Your task to perform on an android device: What's the weather going to be tomorrow? Image 0: 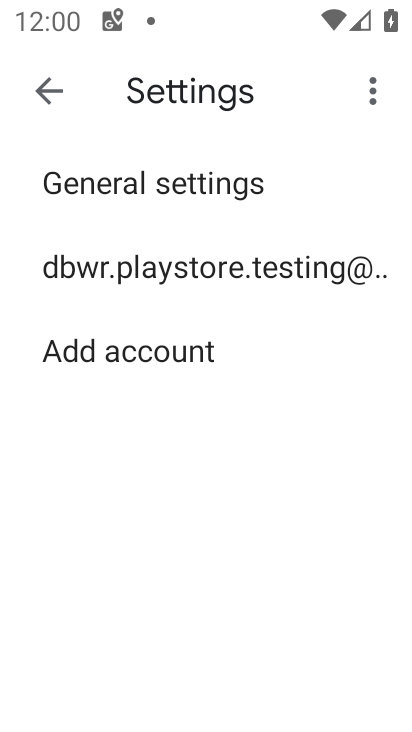
Step 0: drag from (340, 620) to (317, 269)
Your task to perform on an android device: What's the weather going to be tomorrow? Image 1: 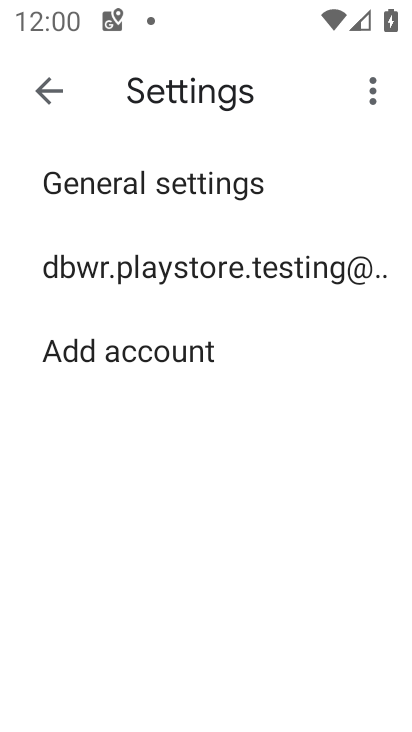
Step 1: press home button
Your task to perform on an android device: What's the weather going to be tomorrow? Image 2: 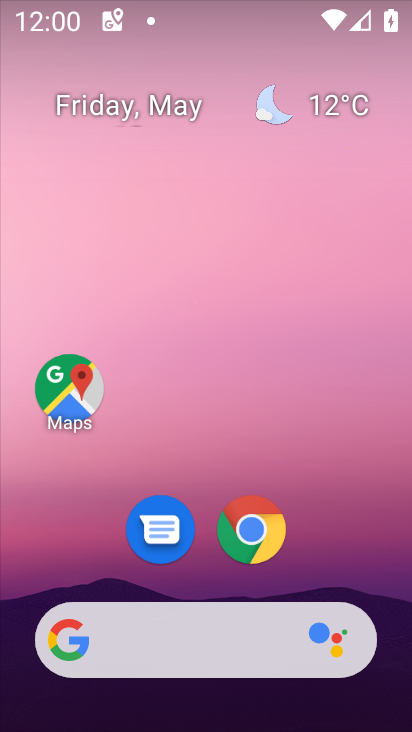
Step 2: click (239, 519)
Your task to perform on an android device: What's the weather going to be tomorrow? Image 3: 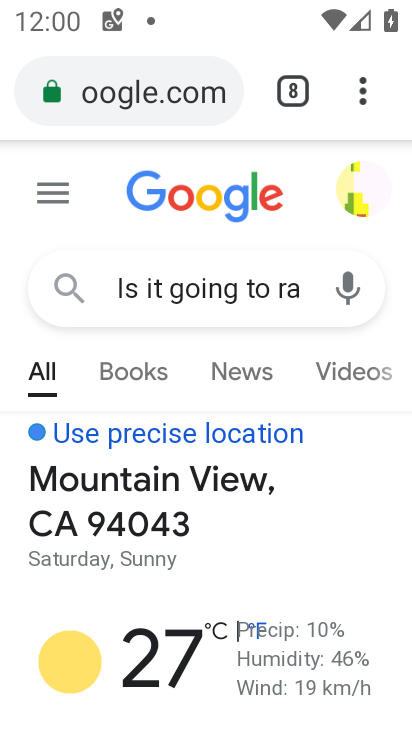
Step 3: click (335, 83)
Your task to perform on an android device: What's the weather going to be tomorrow? Image 4: 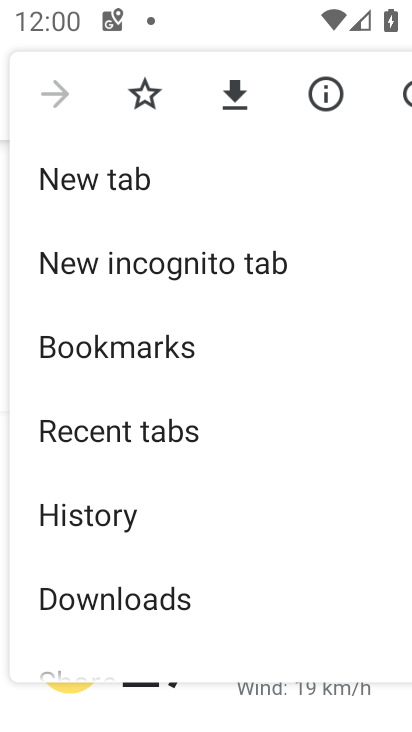
Step 4: click (175, 166)
Your task to perform on an android device: What's the weather going to be tomorrow? Image 5: 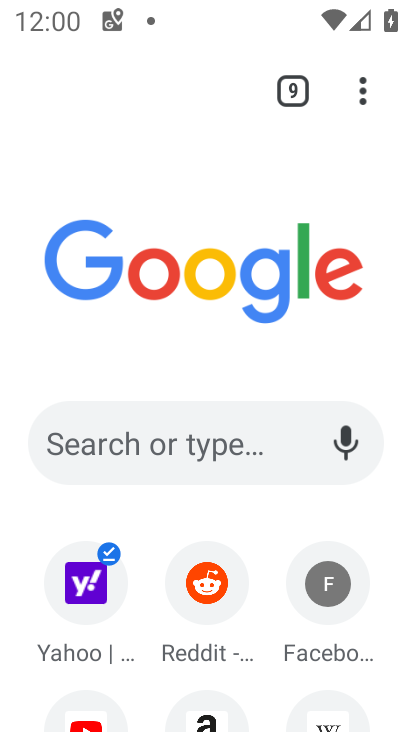
Step 5: click (98, 389)
Your task to perform on an android device: What's the weather going to be tomorrow? Image 6: 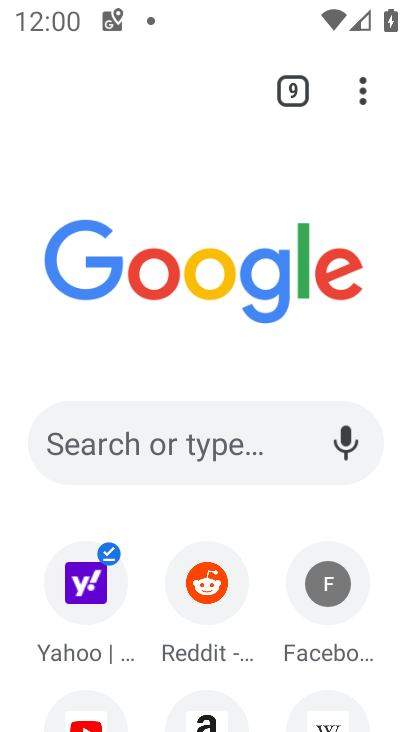
Step 6: click (162, 442)
Your task to perform on an android device: What's the weather going to be tomorrow? Image 7: 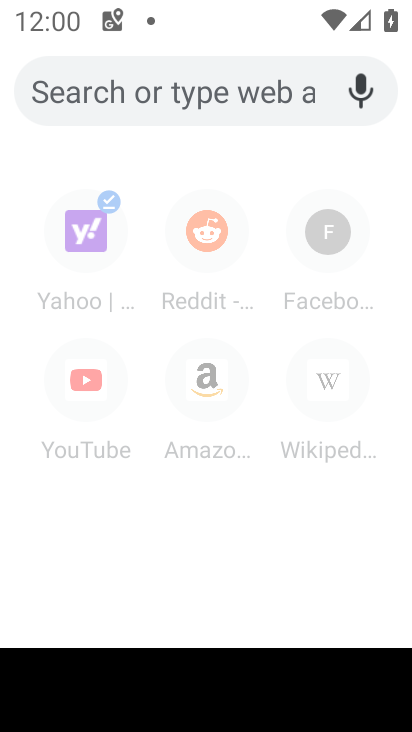
Step 7: type "What's the weather going to be tomorrow?"
Your task to perform on an android device: What's the weather going to be tomorrow? Image 8: 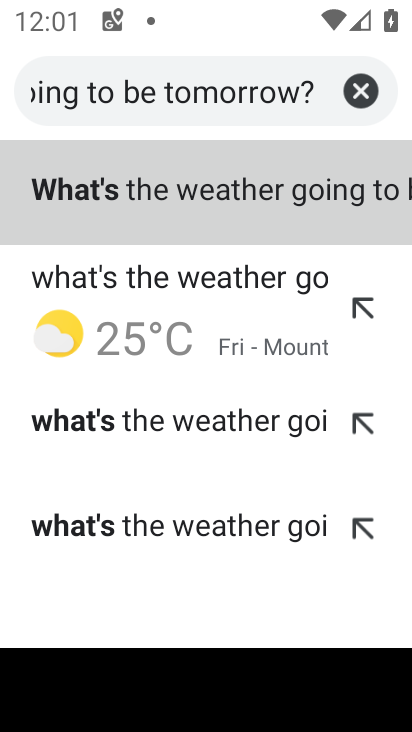
Step 8: click (122, 185)
Your task to perform on an android device: What's the weather going to be tomorrow? Image 9: 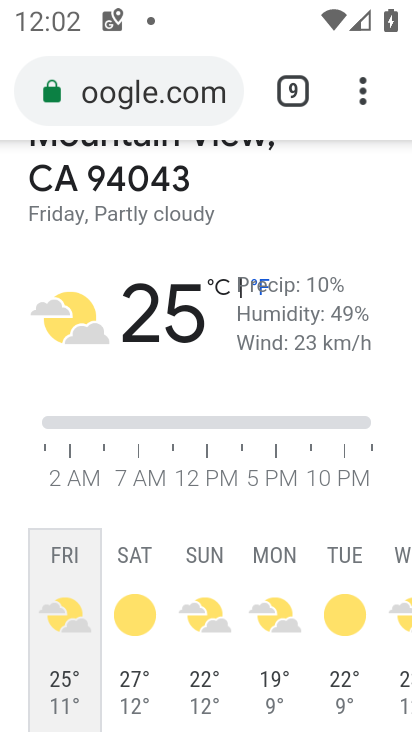
Step 9: task complete